Your task to perform on an android device: Go to sound settings Image 0: 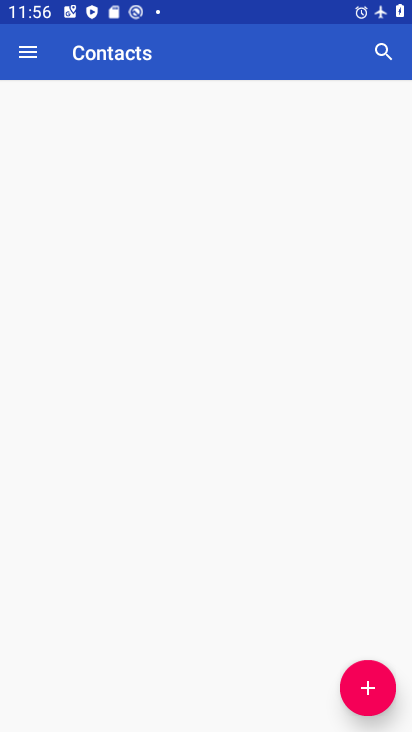
Step 0: press home button
Your task to perform on an android device: Go to sound settings Image 1: 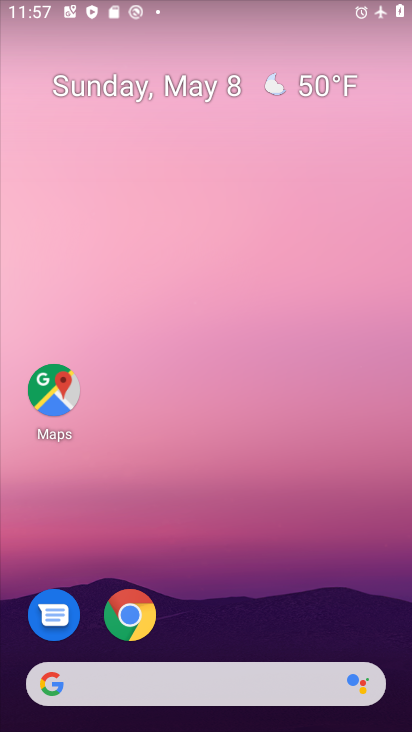
Step 1: drag from (251, 720) to (270, 216)
Your task to perform on an android device: Go to sound settings Image 2: 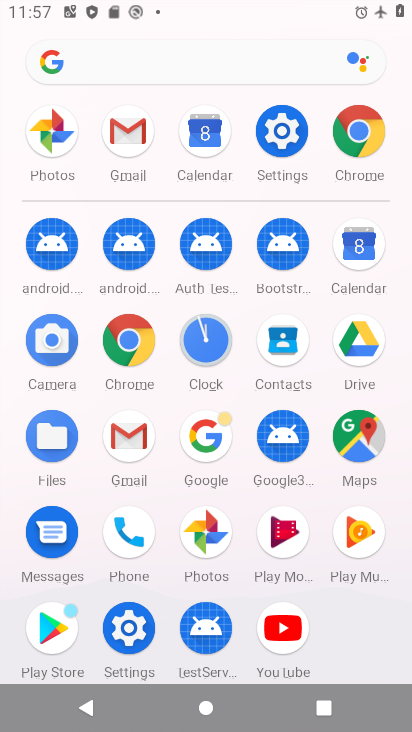
Step 2: click (281, 125)
Your task to perform on an android device: Go to sound settings Image 3: 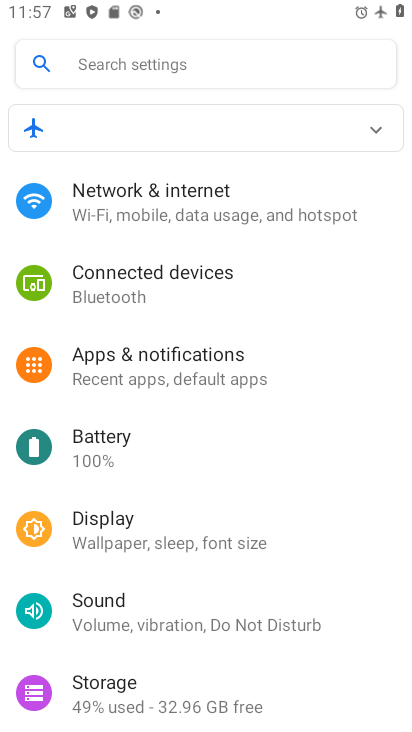
Step 3: click (154, 69)
Your task to perform on an android device: Go to sound settings Image 4: 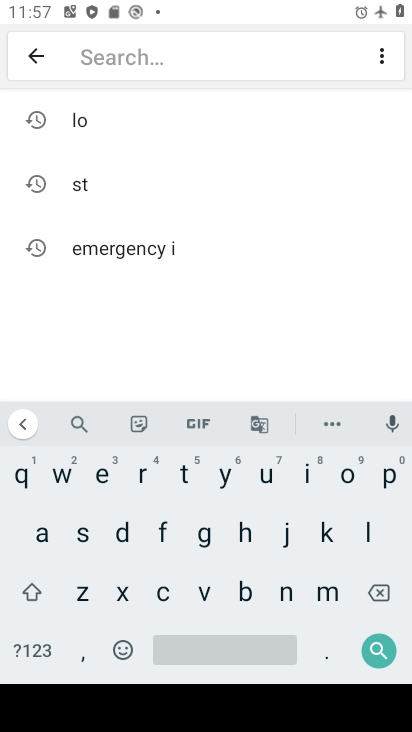
Step 4: click (73, 549)
Your task to perform on an android device: Go to sound settings Image 5: 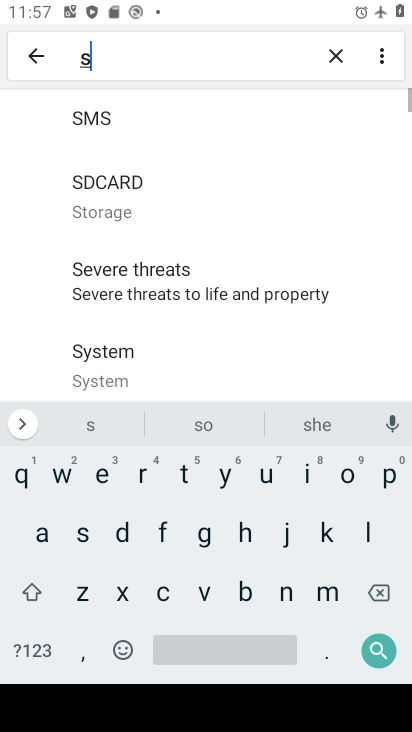
Step 5: click (338, 480)
Your task to perform on an android device: Go to sound settings Image 6: 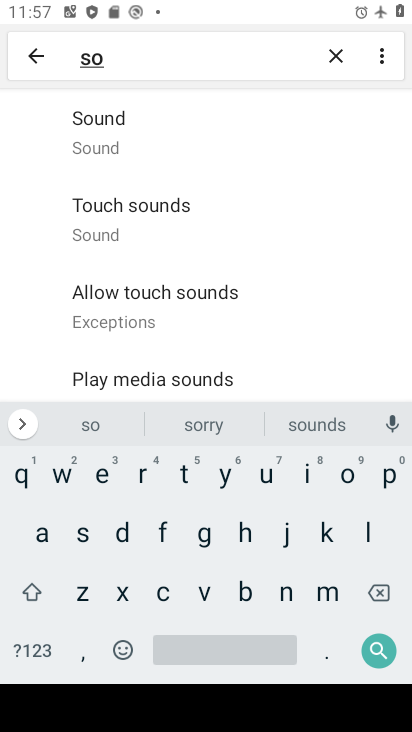
Step 6: click (101, 140)
Your task to perform on an android device: Go to sound settings Image 7: 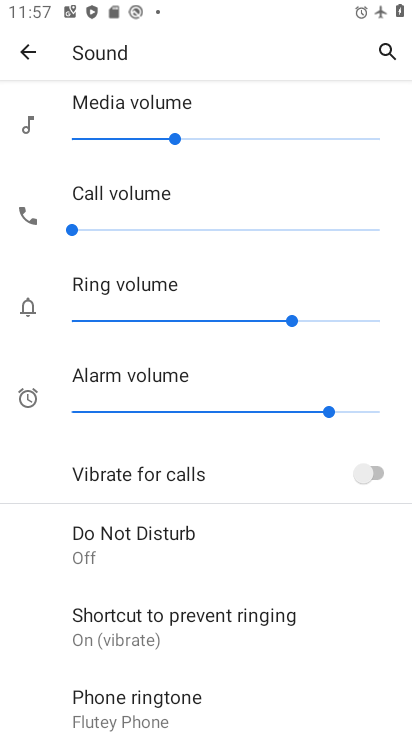
Step 7: task complete